Your task to perform on an android device: check google app version Image 0: 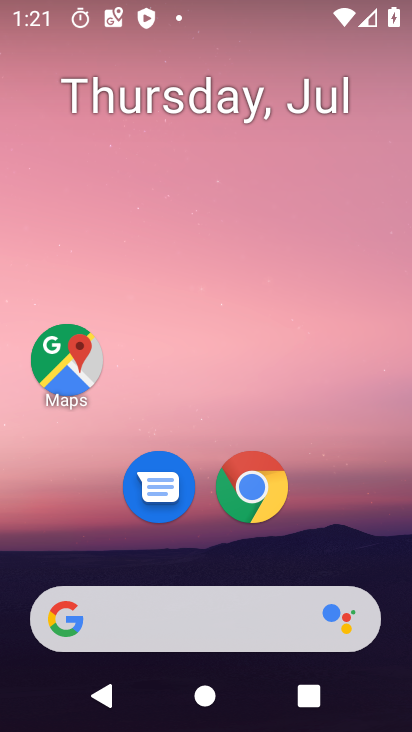
Step 0: drag from (263, 620) to (248, 63)
Your task to perform on an android device: check google app version Image 1: 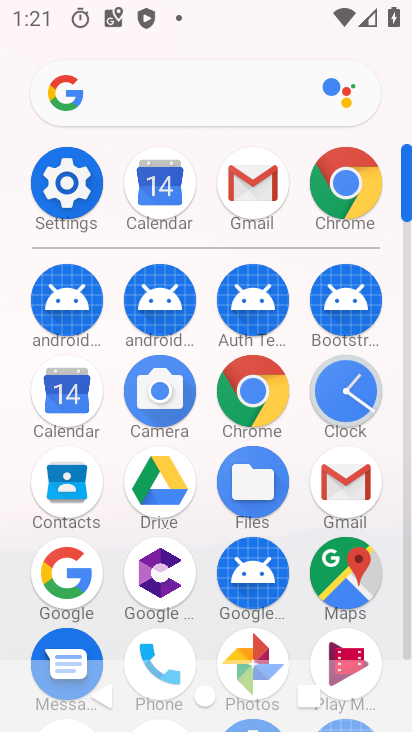
Step 1: click (63, 584)
Your task to perform on an android device: check google app version Image 2: 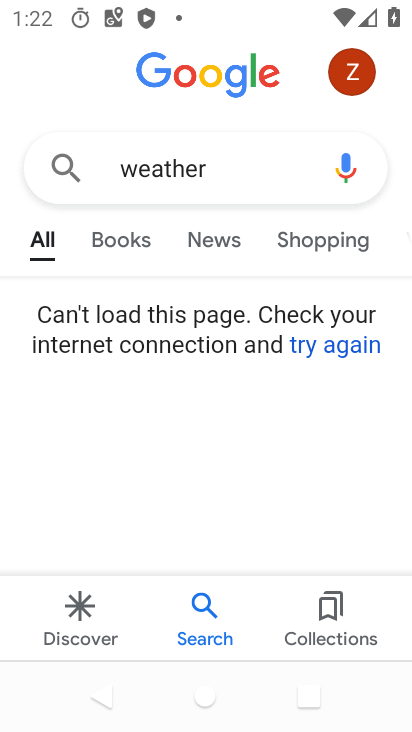
Step 2: click (357, 77)
Your task to perform on an android device: check google app version Image 3: 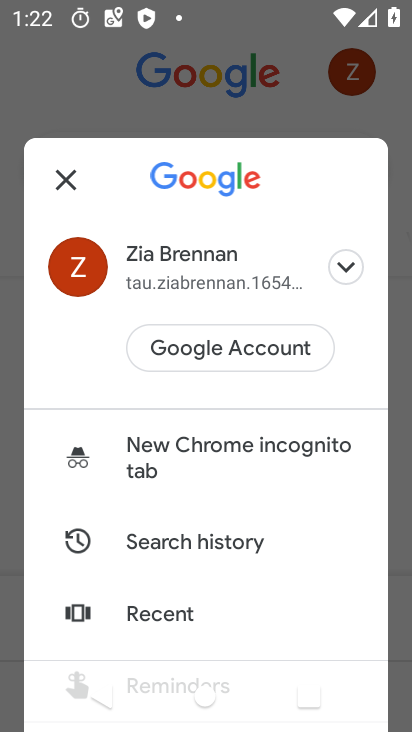
Step 3: drag from (222, 563) to (286, 117)
Your task to perform on an android device: check google app version Image 4: 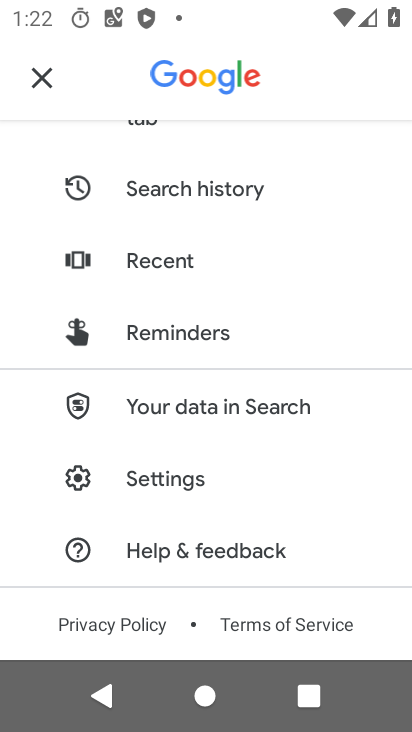
Step 4: click (179, 489)
Your task to perform on an android device: check google app version Image 5: 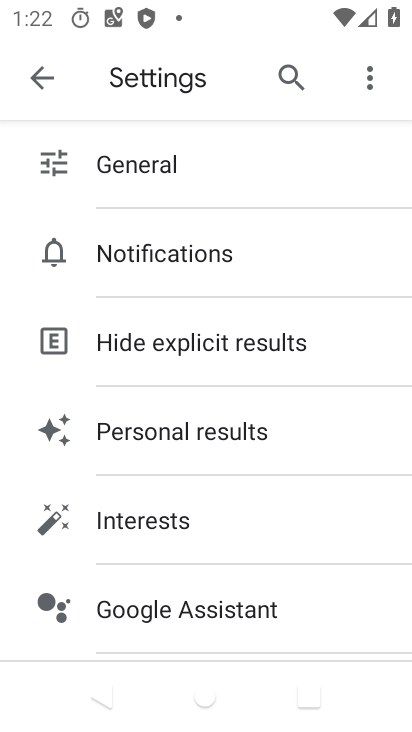
Step 5: drag from (186, 535) to (247, 86)
Your task to perform on an android device: check google app version Image 6: 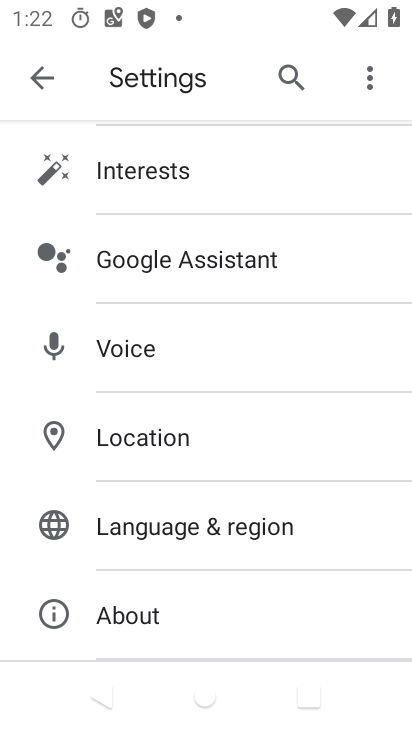
Step 6: click (166, 617)
Your task to perform on an android device: check google app version Image 7: 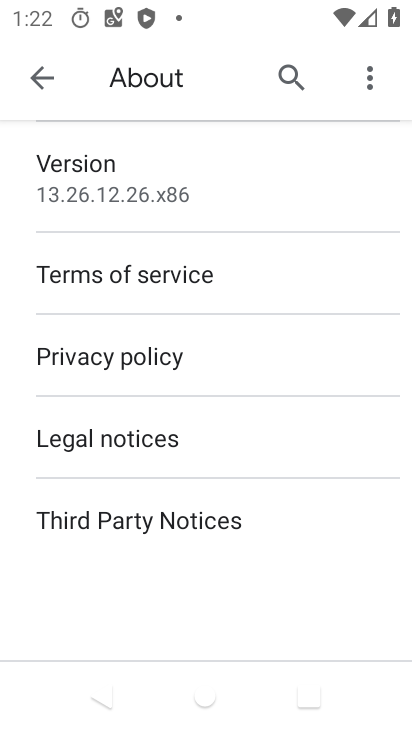
Step 7: click (90, 190)
Your task to perform on an android device: check google app version Image 8: 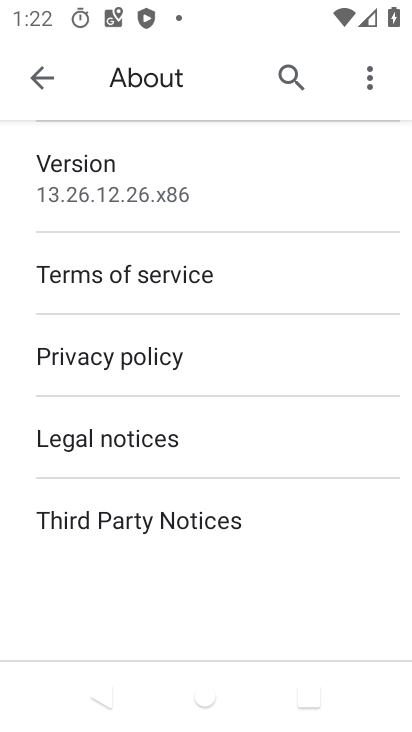
Step 8: task complete